Your task to perform on an android device: turn off location Image 0: 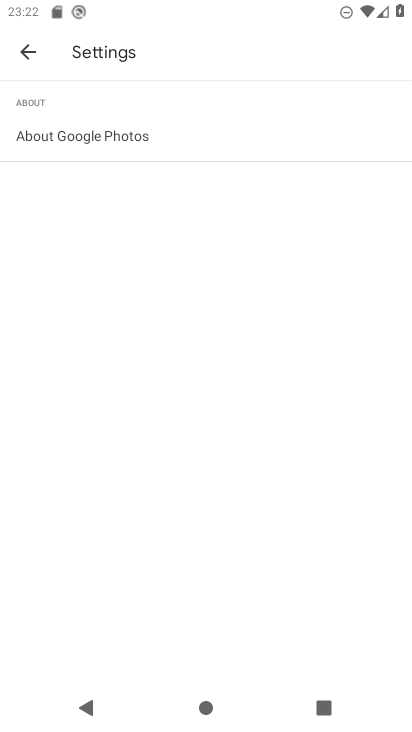
Step 0: press home button
Your task to perform on an android device: turn off location Image 1: 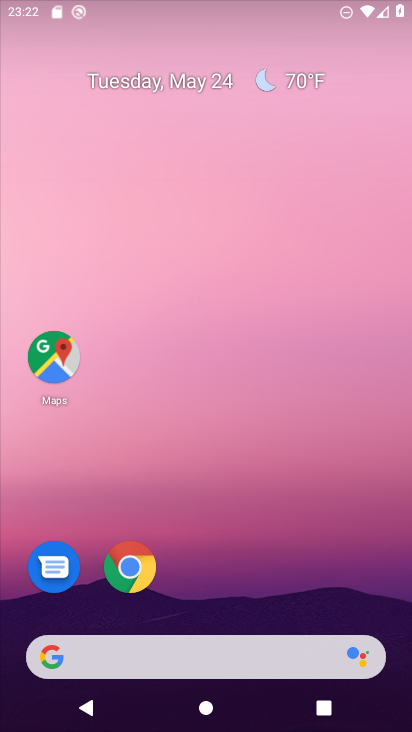
Step 1: drag from (295, 537) to (221, 0)
Your task to perform on an android device: turn off location Image 2: 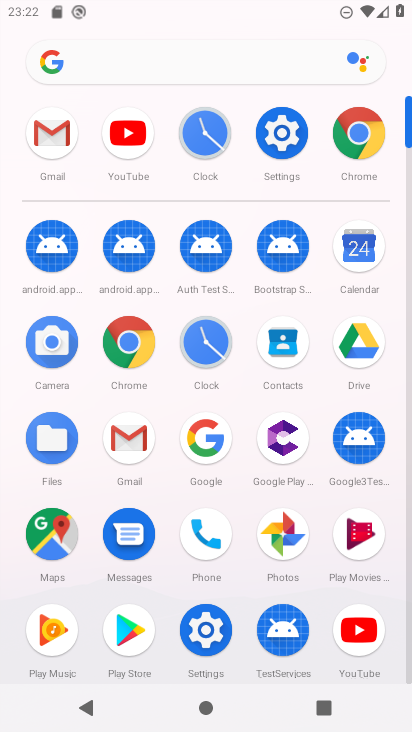
Step 2: click (283, 126)
Your task to perform on an android device: turn off location Image 3: 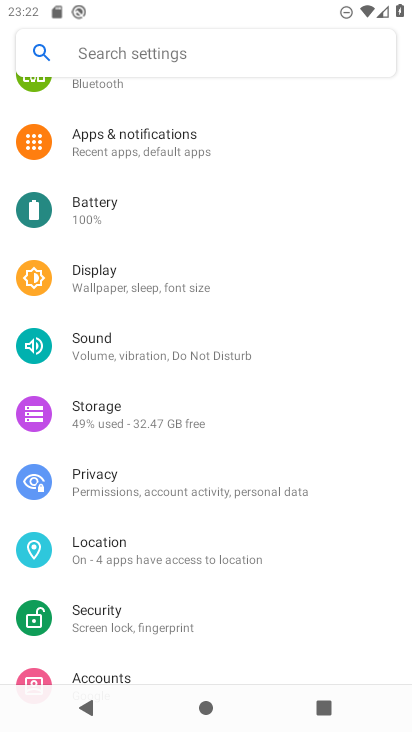
Step 3: click (206, 555)
Your task to perform on an android device: turn off location Image 4: 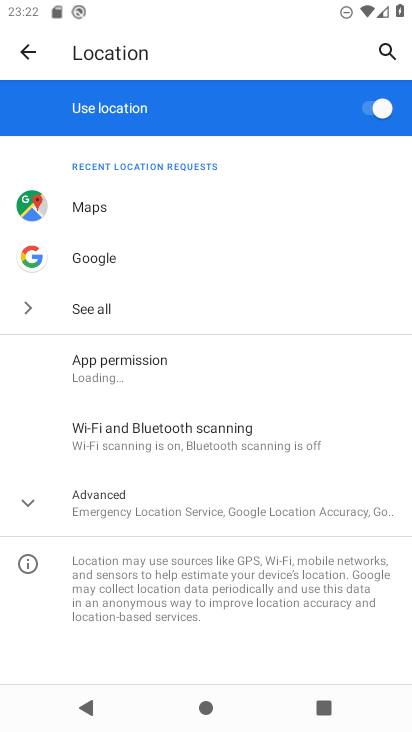
Step 4: click (373, 105)
Your task to perform on an android device: turn off location Image 5: 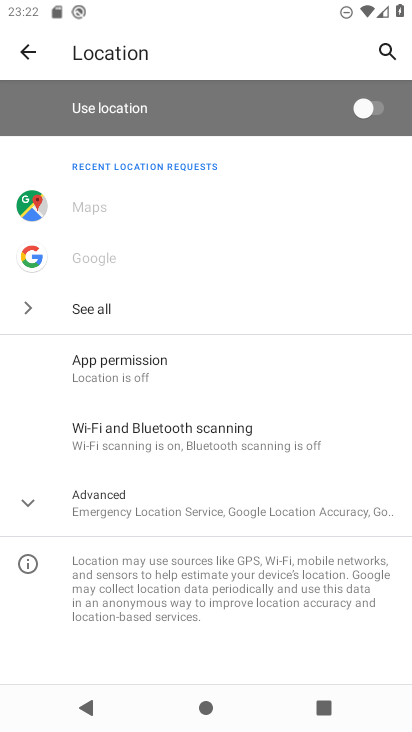
Step 5: task complete